Your task to perform on an android device: Show me popular games on the Play Store Image 0: 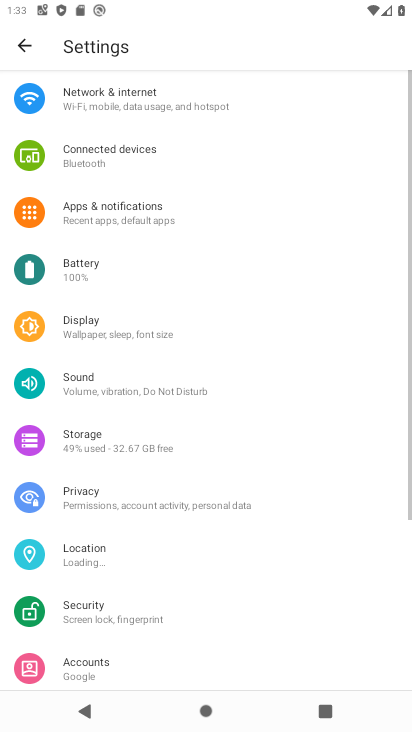
Step 0: press home button
Your task to perform on an android device: Show me popular games on the Play Store Image 1: 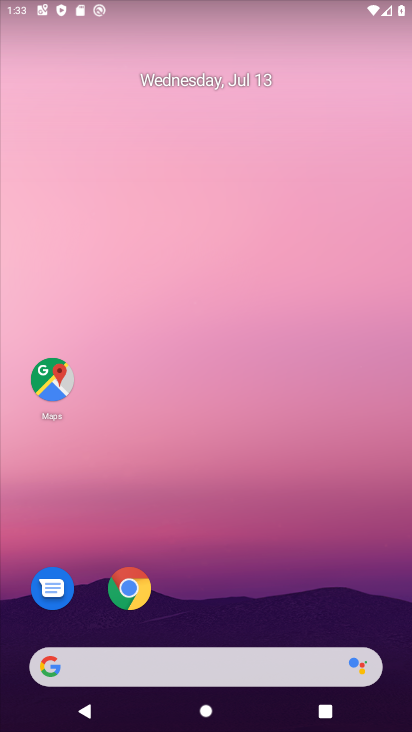
Step 1: drag from (120, 622) to (124, 312)
Your task to perform on an android device: Show me popular games on the Play Store Image 2: 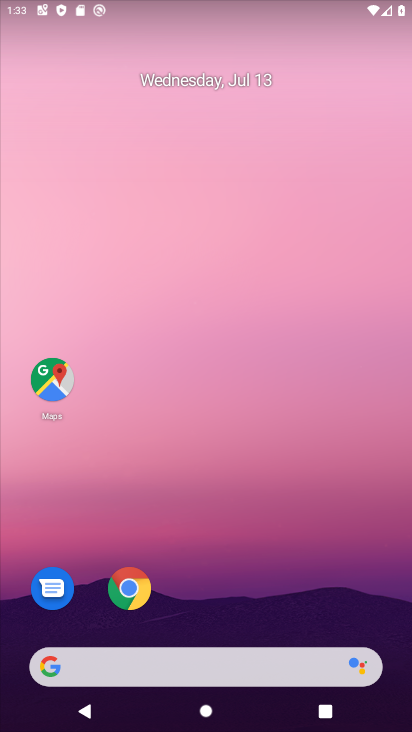
Step 2: drag from (261, 643) to (273, 159)
Your task to perform on an android device: Show me popular games on the Play Store Image 3: 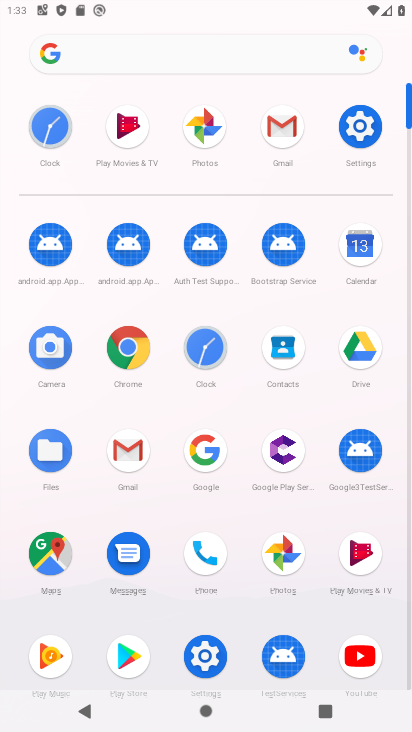
Step 3: click (139, 656)
Your task to perform on an android device: Show me popular games on the Play Store Image 4: 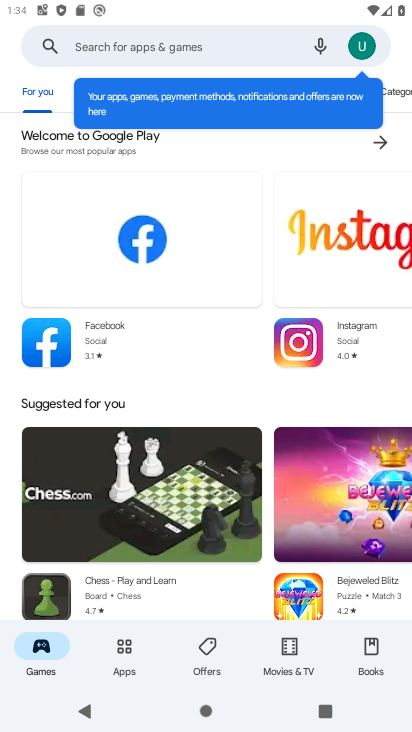
Step 4: click (108, 53)
Your task to perform on an android device: Show me popular games on the Play Store Image 5: 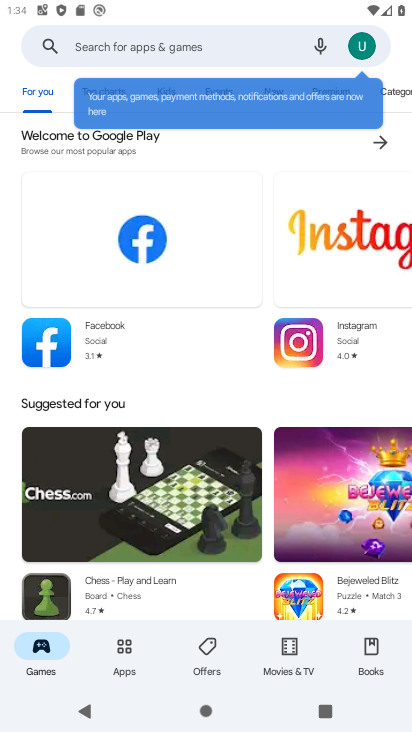
Step 5: click (100, 46)
Your task to perform on an android device: Show me popular games on the Play Store Image 6: 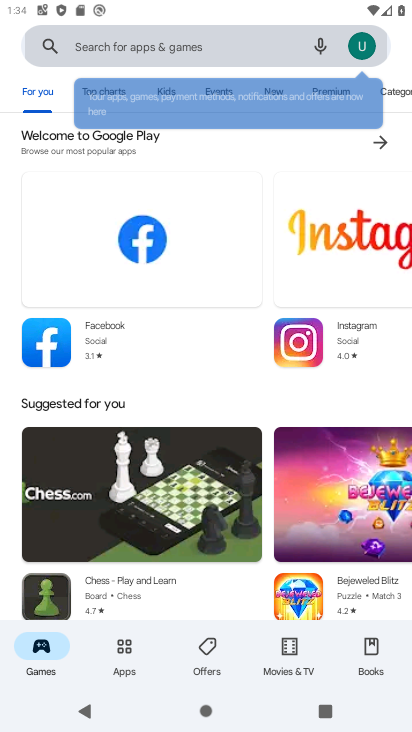
Step 6: click (344, 151)
Your task to perform on an android device: Show me popular games on the Play Store Image 7: 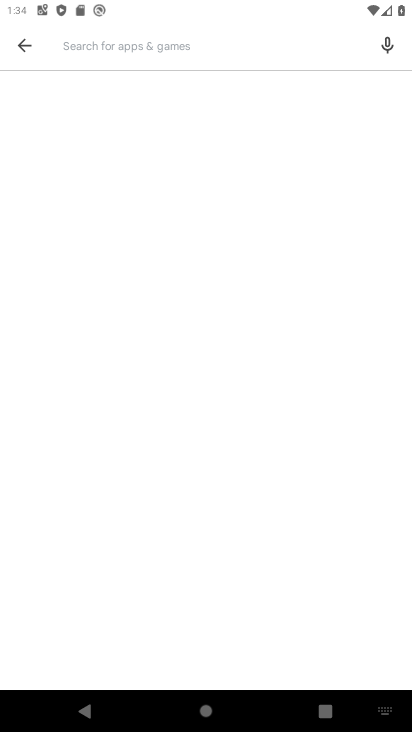
Step 7: type "popular games"
Your task to perform on an android device: Show me popular games on the Play Store Image 8: 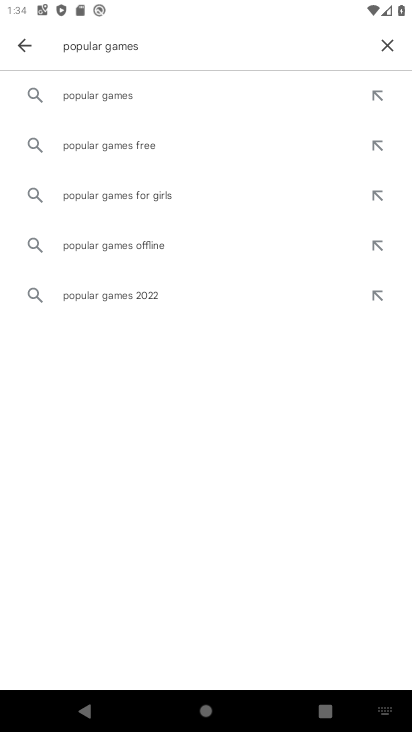
Step 8: click (91, 100)
Your task to perform on an android device: Show me popular games on the Play Store Image 9: 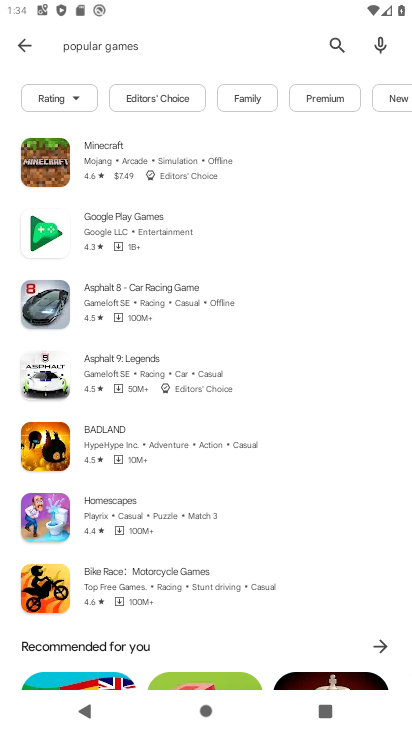
Step 9: task complete